Your task to perform on an android device: Search for pizza restaurants on Maps Image 0: 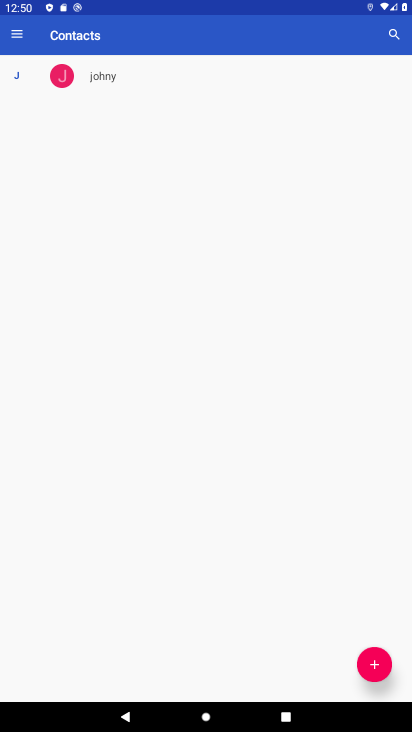
Step 0: press home button
Your task to perform on an android device: Search for pizza restaurants on Maps Image 1: 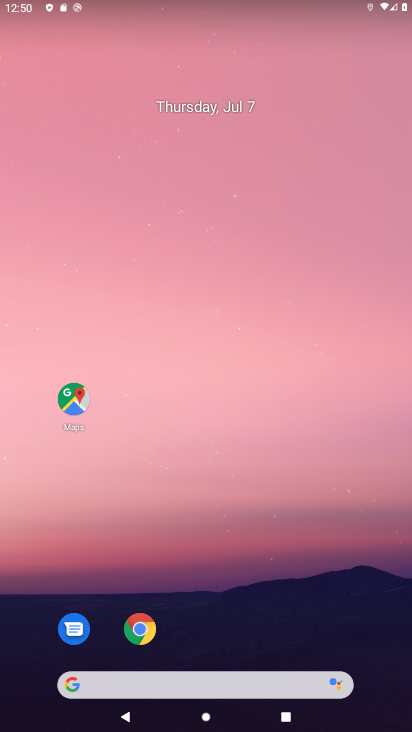
Step 1: click (77, 400)
Your task to perform on an android device: Search for pizza restaurants on Maps Image 2: 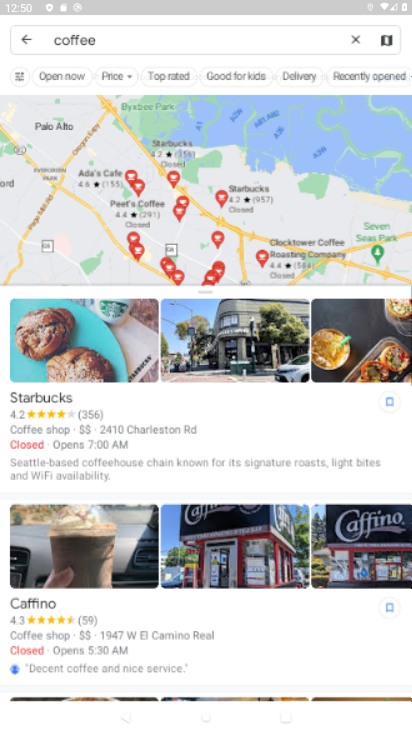
Step 2: click (200, 44)
Your task to perform on an android device: Search for pizza restaurants on Maps Image 3: 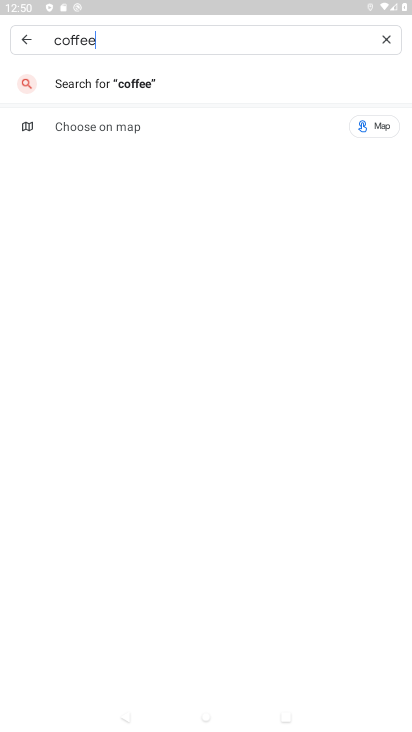
Step 3: click (384, 39)
Your task to perform on an android device: Search for pizza restaurants on Maps Image 4: 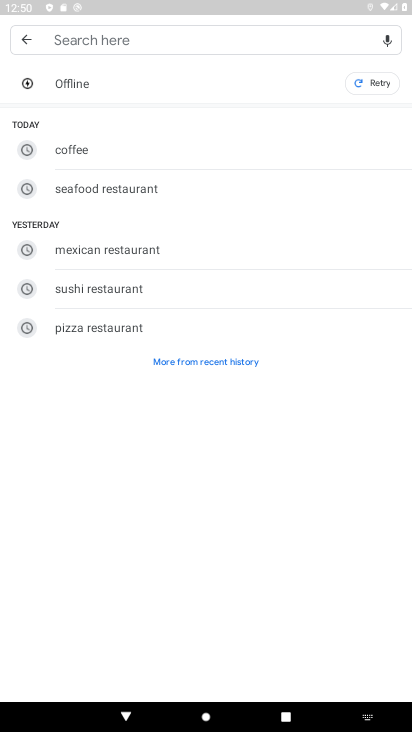
Step 4: click (101, 328)
Your task to perform on an android device: Search for pizza restaurants on Maps Image 5: 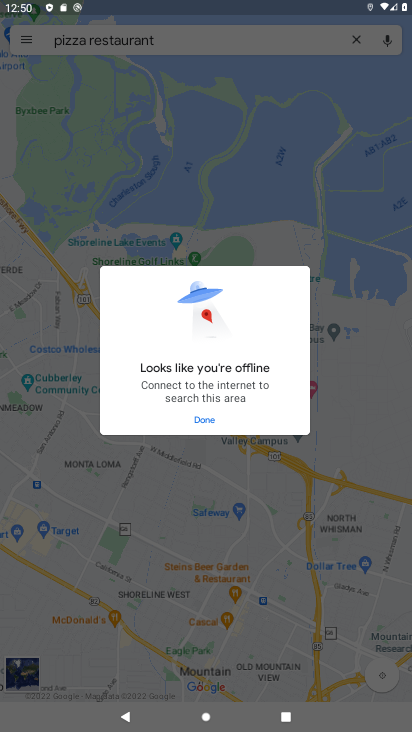
Step 5: task complete